Your task to perform on an android device: Open maps Image 0: 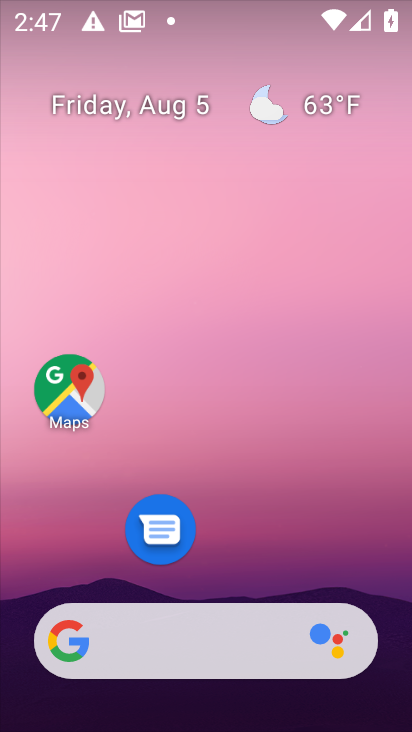
Step 0: click (73, 383)
Your task to perform on an android device: Open maps Image 1: 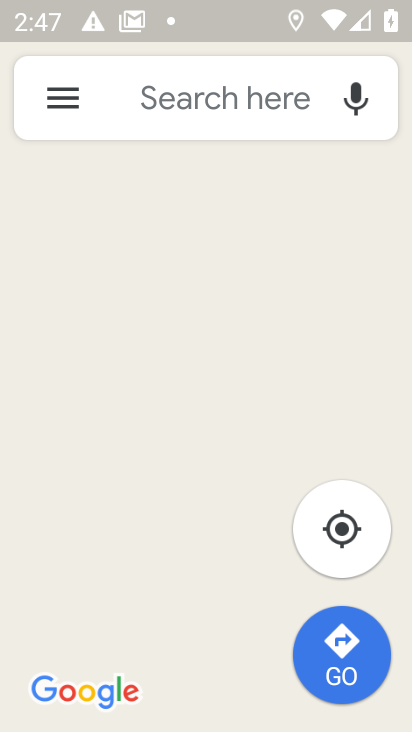
Step 1: task complete